Your task to perform on an android device: Open battery settings Image 0: 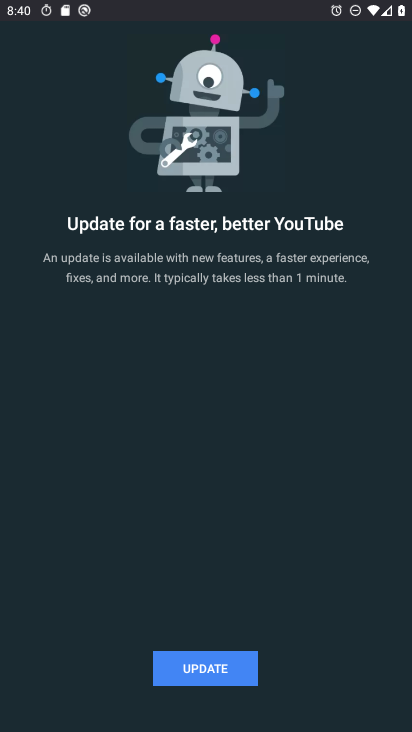
Step 0: press home button
Your task to perform on an android device: Open battery settings Image 1: 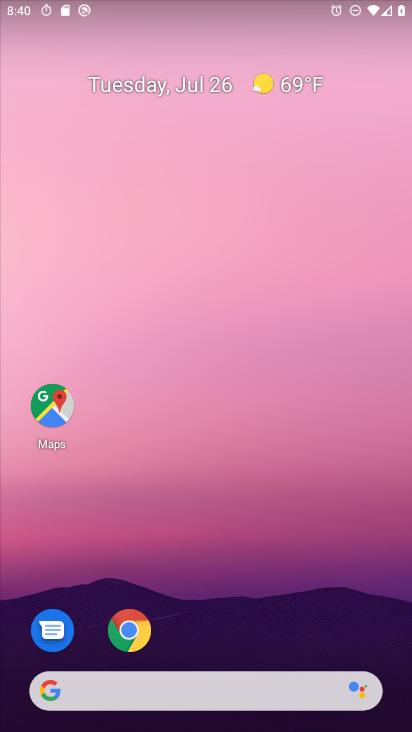
Step 1: drag from (255, 606) to (260, 285)
Your task to perform on an android device: Open battery settings Image 2: 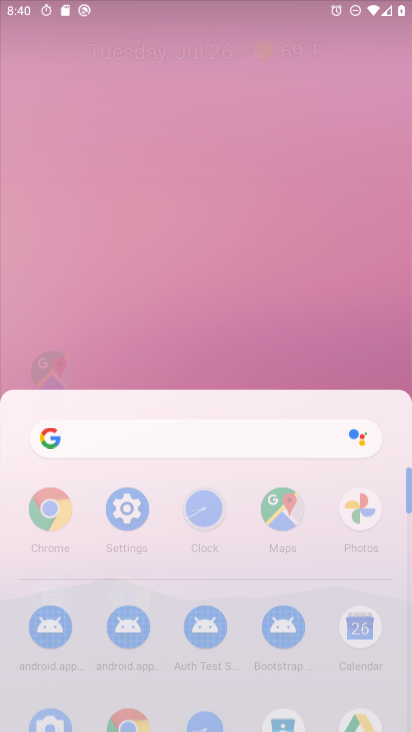
Step 2: click (260, 278)
Your task to perform on an android device: Open battery settings Image 3: 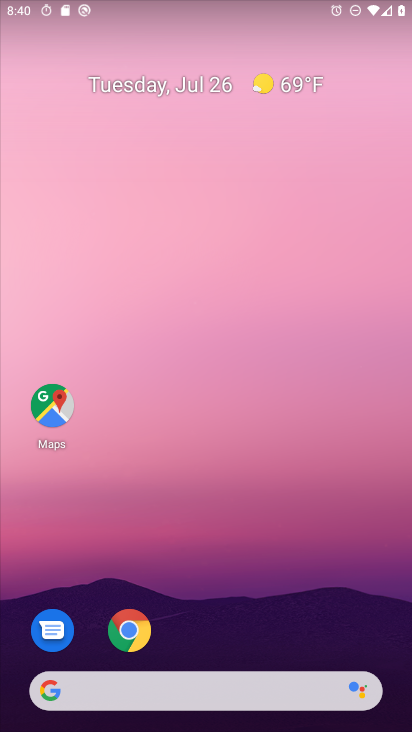
Step 3: drag from (227, 625) to (277, 169)
Your task to perform on an android device: Open battery settings Image 4: 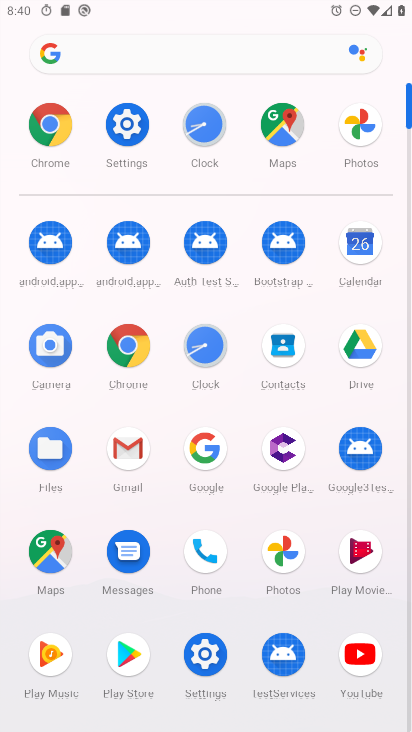
Step 4: click (194, 654)
Your task to perform on an android device: Open battery settings Image 5: 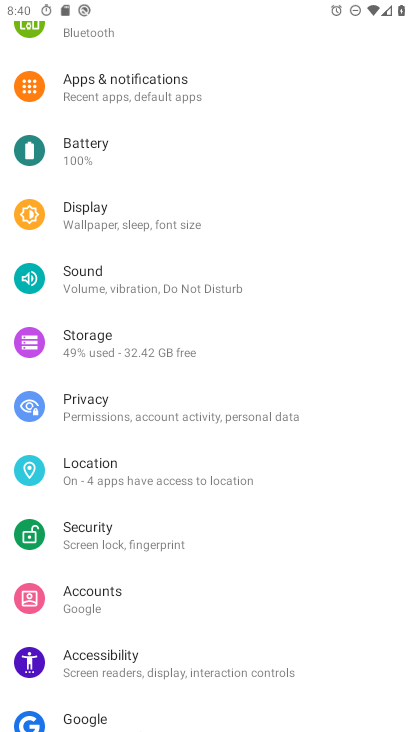
Step 5: click (222, 176)
Your task to perform on an android device: Open battery settings Image 6: 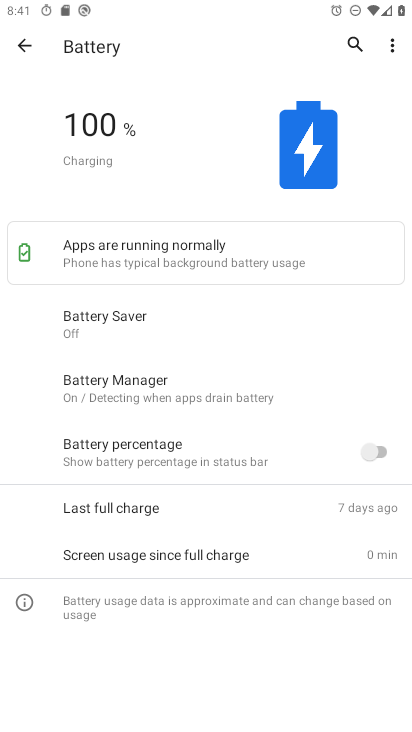
Step 6: click (390, 55)
Your task to perform on an android device: Open battery settings Image 7: 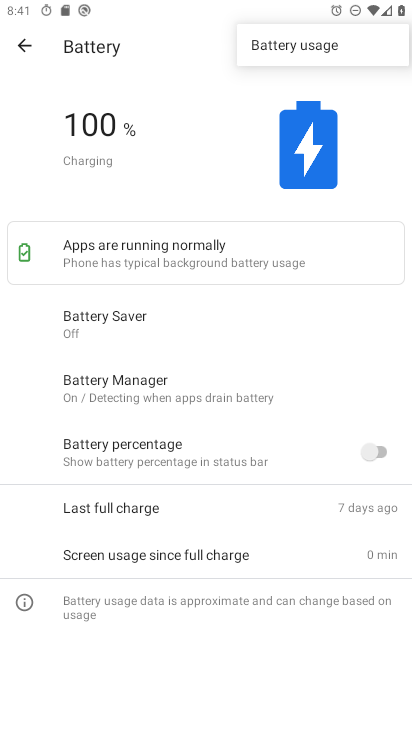
Step 7: task complete